Your task to perform on an android device: turn off translation in the chrome app Image 0: 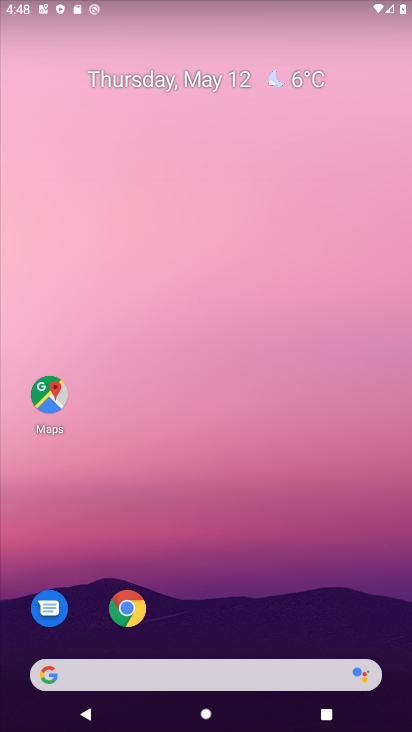
Step 0: click (124, 602)
Your task to perform on an android device: turn off translation in the chrome app Image 1: 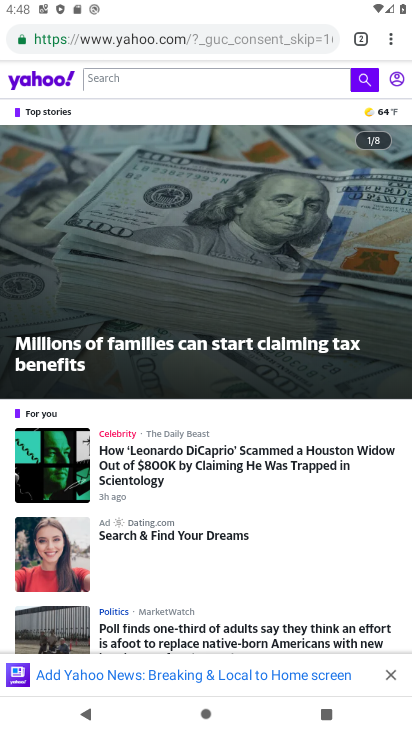
Step 1: click (389, 33)
Your task to perform on an android device: turn off translation in the chrome app Image 2: 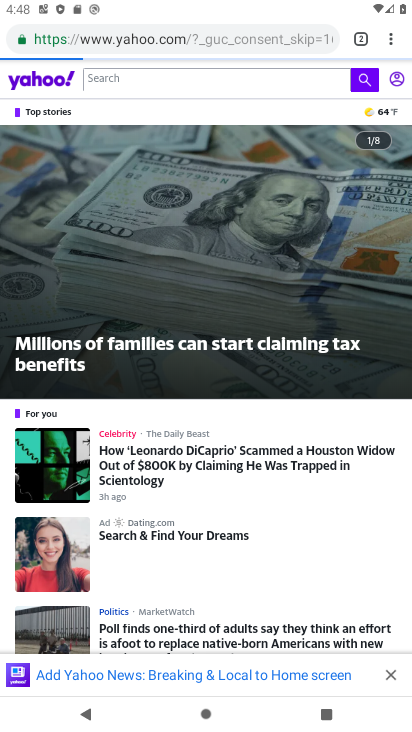
Step 2: drag from (389, 33) to (274, 466)
Your task to perform on an android device: turn off translation in the chrome app Image 3: 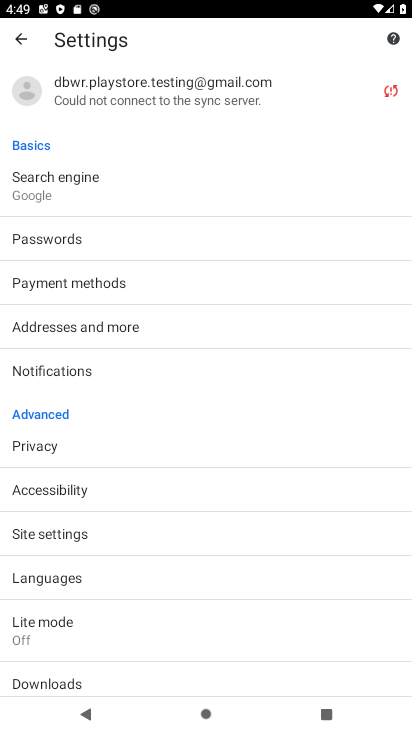
Step 3: drag from (213, 576) to (204, 230)
Your task to perform on an android device: turn off translation in the chrome app Image 4: 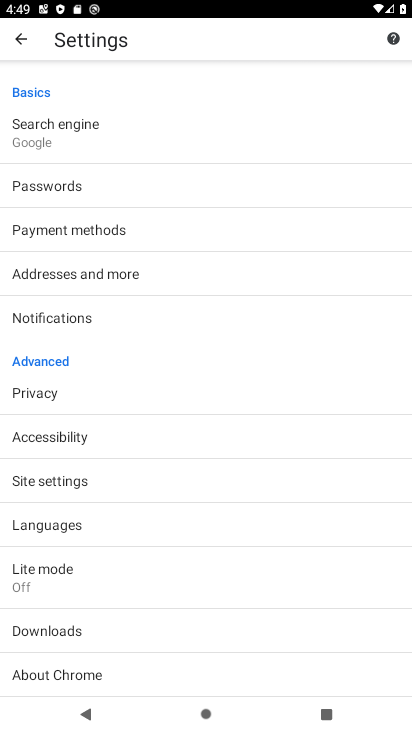
Step 4: click (68, 522)
Your task to perform on an android device: turn off translation in the chrome app Image 5: 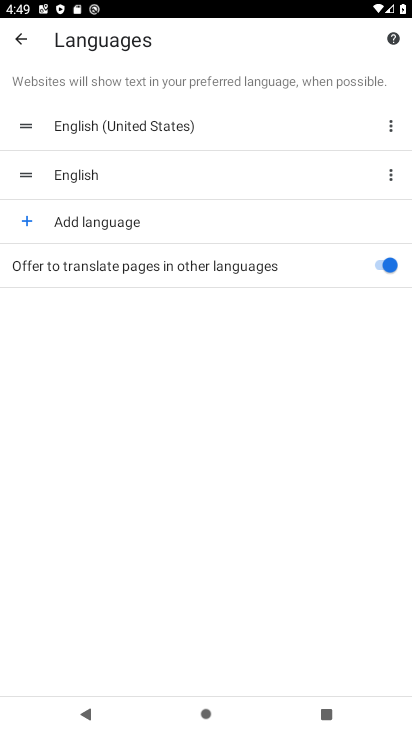
Step 5: click (374, 262)
Your task to perform on an android device: turn off translation in the chrome app Image 6: 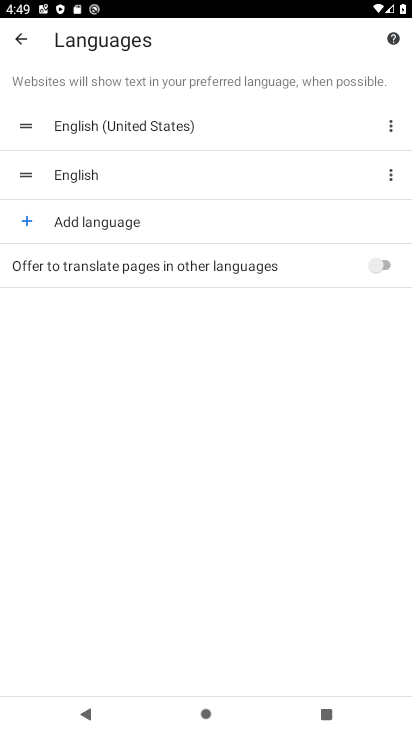
Step 6: task complete